Your task to perform on an android device: Search for Mexican restaurants on Maps Image 0: 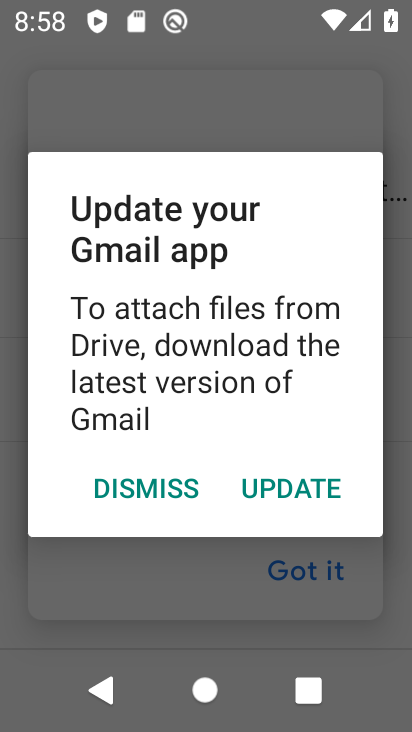
Step 0: press home button
Your task to perform on an android device: Search for Mexican restaurants on Maps Image 1: 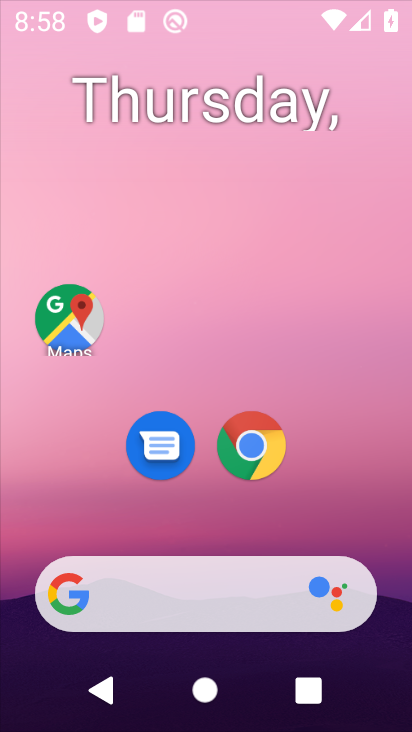
Step 1: drag from (201, 578) to (240, 30)
Your task to perform on an android device: Search for Mexican restaurants on Maps Image 2: 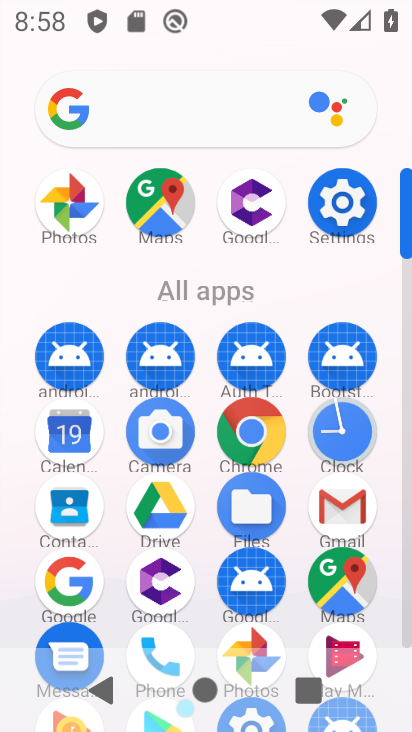
Step 2: click (143, 98)
Your task to perform on an android device: Search for Mexican restaurants on Maps Image 3: 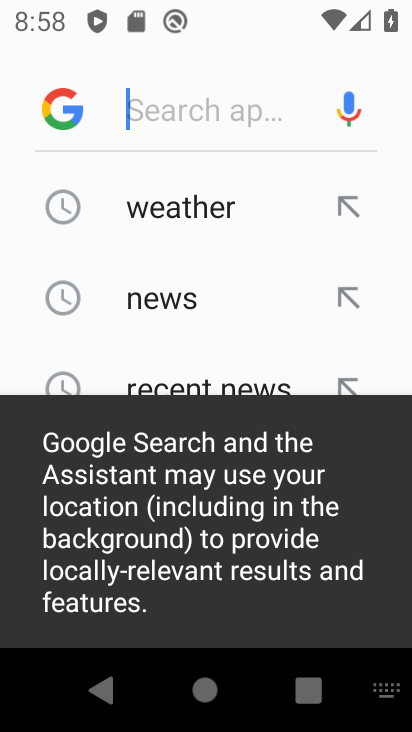
Step 3: drag from (234, 347) to (233, 12)
Your task to perform on an android device: Search for Mexican restaurants on Maps Image 4: 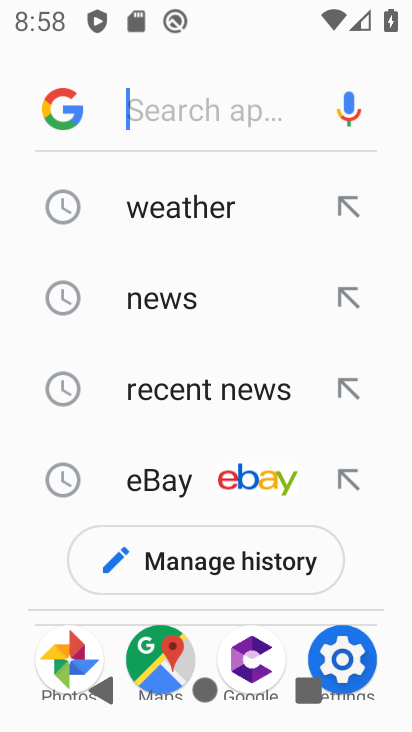
Step 4: drag from (206, 380) to (262, 156)
Your task to perform on an android device: Search for Mexican restaurants on Maps Image 5: 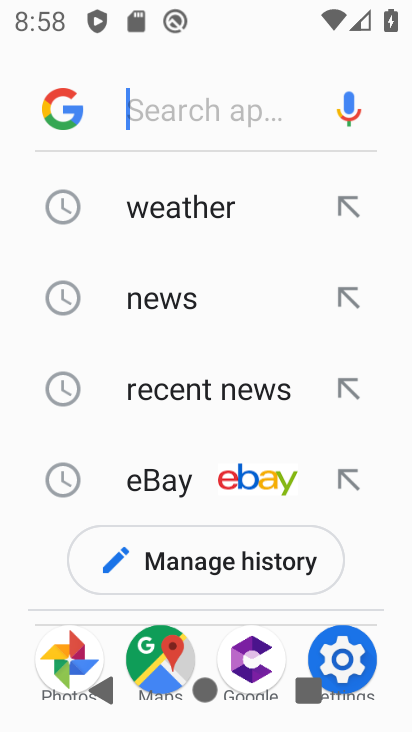
Step 5: click (176, 85)
Your task to perform on an android device: Search for Mexican restaurants on Maps Image 6: 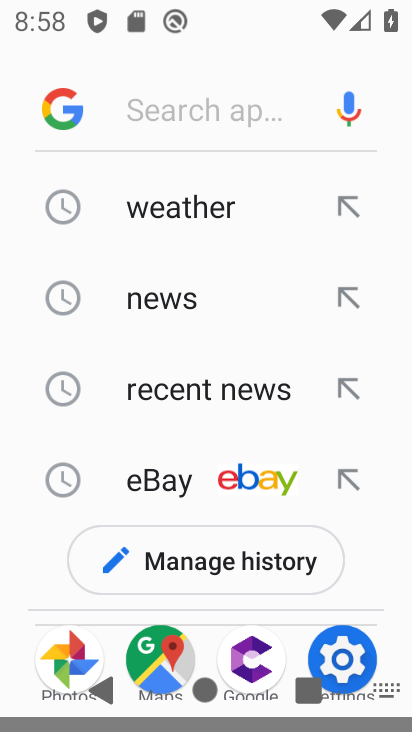
Step 6: click (172, 102)
Your task to perform on an android device: Search for Mexican restaurants on Maps Image 7: 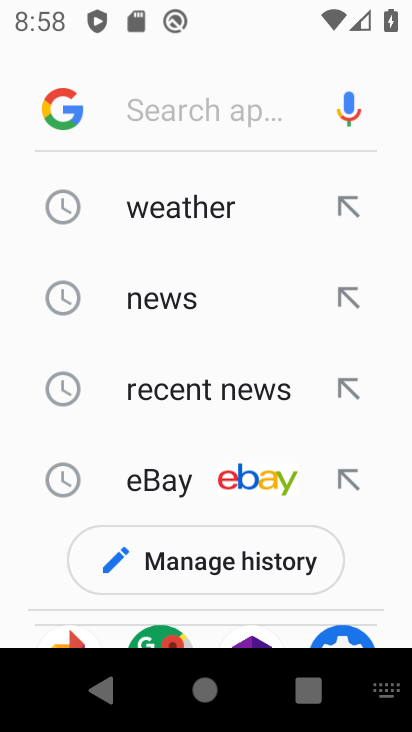
Step 7: type "maxican restaurants"
Your task to perform on an android device: Search for Mexican restaurants on Maps Image 8: 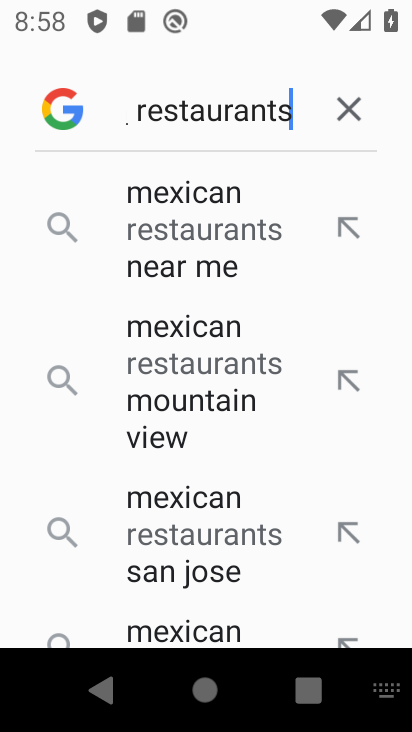
Step 8: click (181, 236)
Your task to perform on an android device: Search for Mexican restaurants on Maps Image 9: 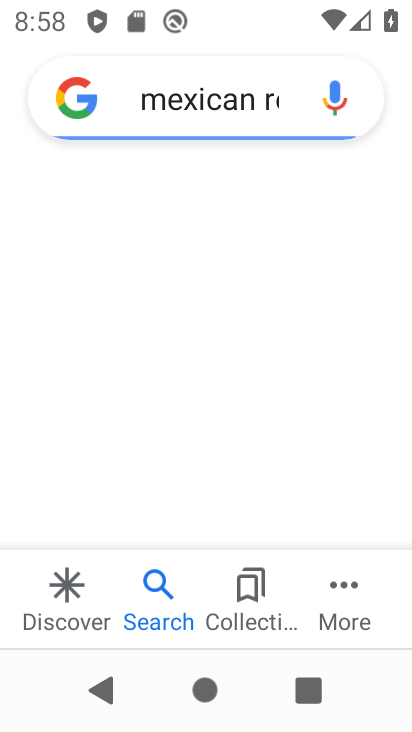
Step 9: task complete